Your task to perform on an android device: Go to CNN.com Image 0: 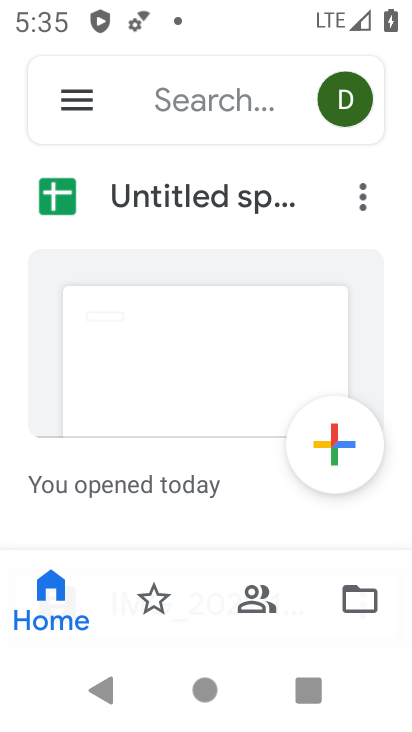
Step 0: press home button
Your task to perform on an android device: Go to CNN.com Image 1: 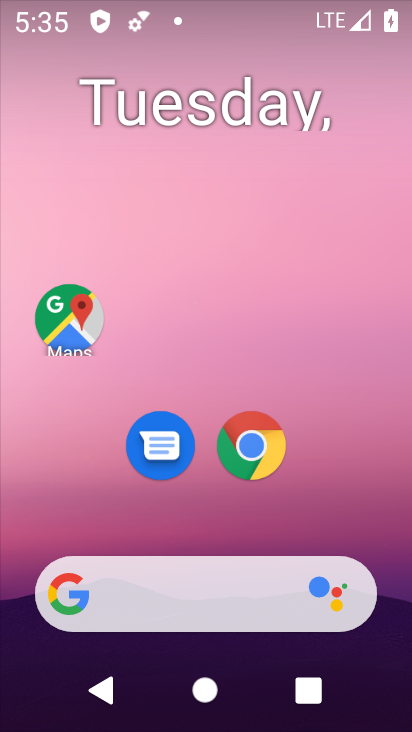
Step 1: drag from (314, 510) to (362, 202)
Your task to perform on an android device: Go to CNN.com Image 2: 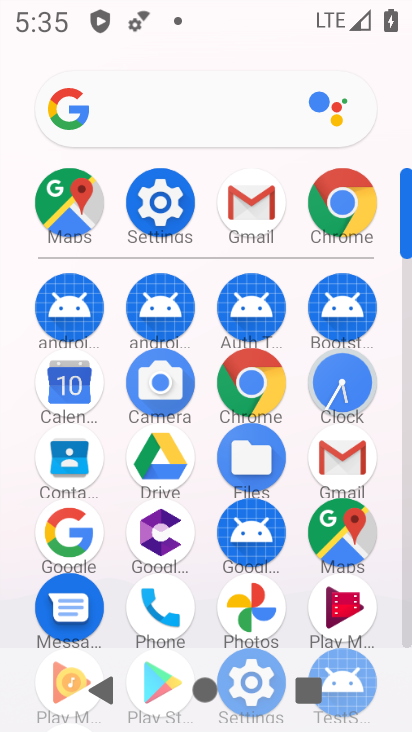
Step 2: click (255, 387)
Your task to perform on an android device: Go to CNN.com Image 3: 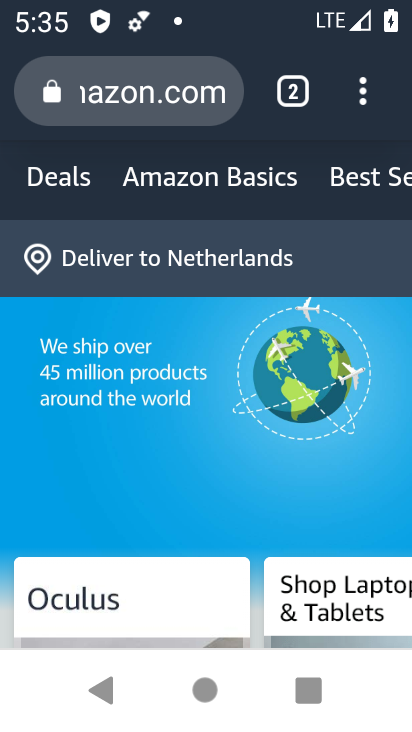
Step 3: drag from (362, 95) to (192, 195)
Your task to perform on an android device: Go to CNN.com Image 4: 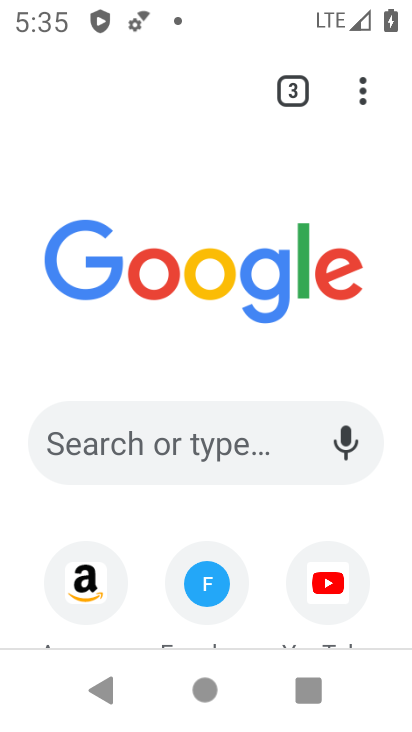
Step 4: click (180, 437)
Your task to perform on an android device: Go to CNN.com Image 5: 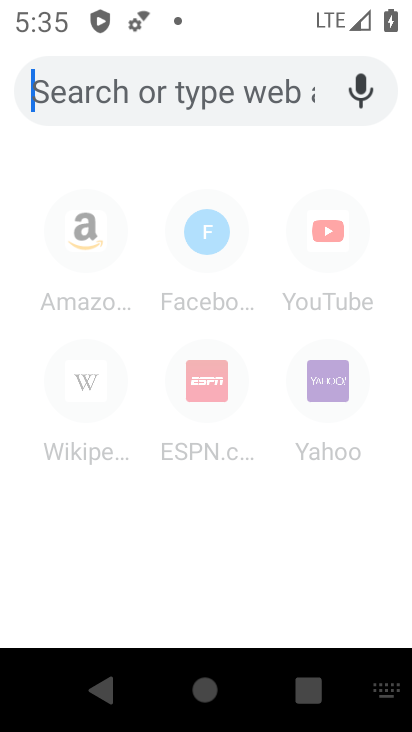
Step 5: type "CNN.com"
Your task to perform on an android device: Go to CNN.com Image 6: 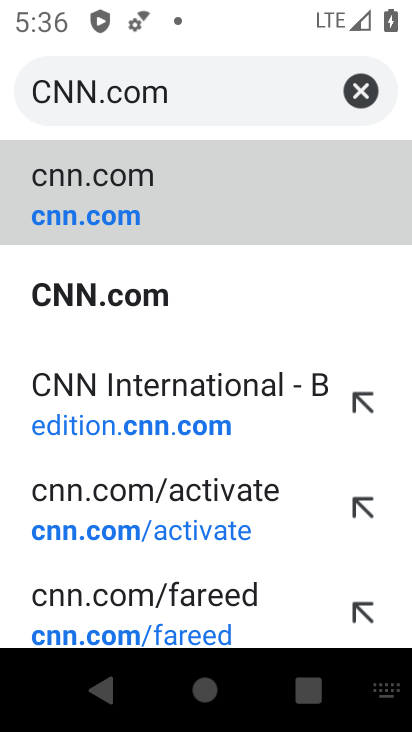
Step 6: click (122, 215)
Your task to perform on an android device: Go to CNN.com Image 7: 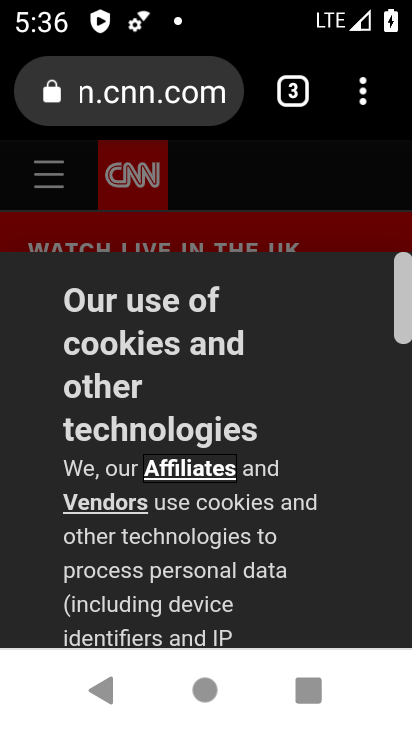
Step 7: task complete